Your task to perform on an android device: Open Yahoo.com Image 0: 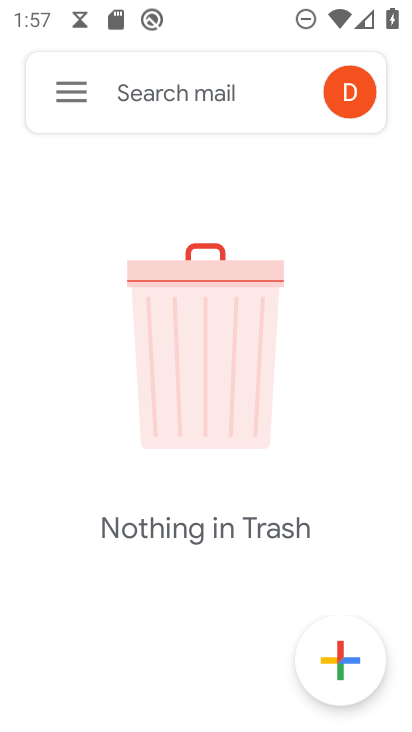
Step 0: press home button
Your task to perform on an android device: Open Yahoo.com Image 1: 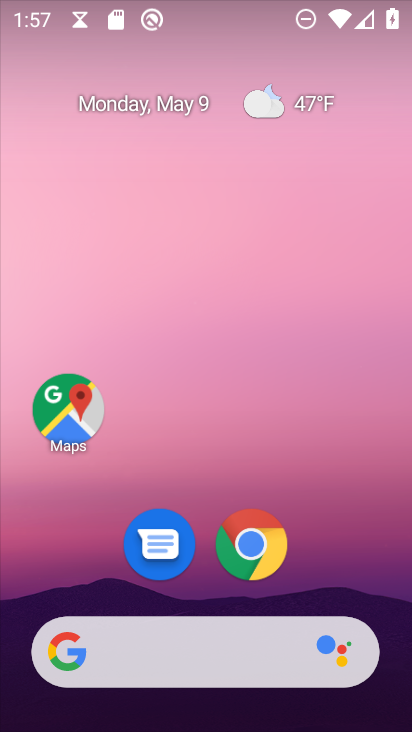
Step 1: click (246, 536)
Your task to perform on an android device: Open Yahoo.com Image 2: 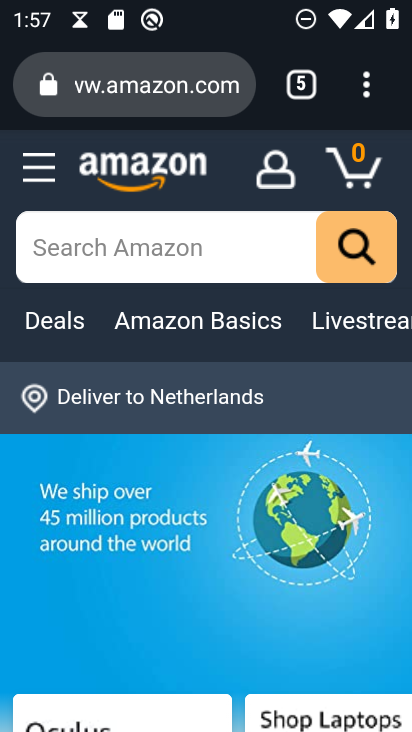
Step 2: click (171, 76)
Your task to perform on an android device: Open Yahoo.com Image 3: 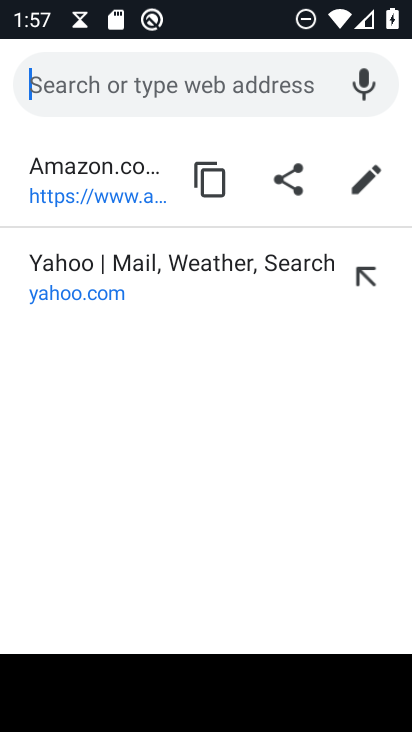
Step 3: click (142, 276)
Your task to perform on an android device: Open Yahoo.com Image 4: 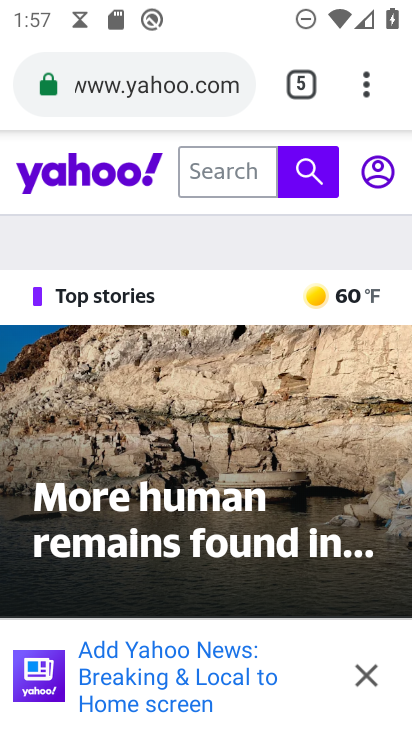
Step 4: task complete